Your task to perform on an android device: turn on location history Image 0: 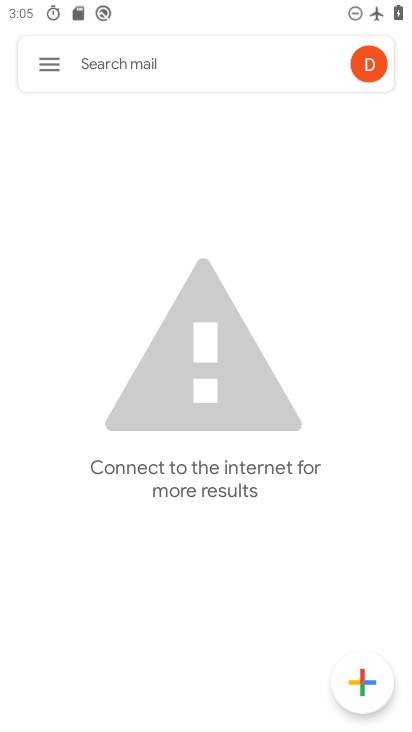
Step 0: drag from (281, 632) to (334, 94)
Your task to perform on an android device: turn on location history Image 1: 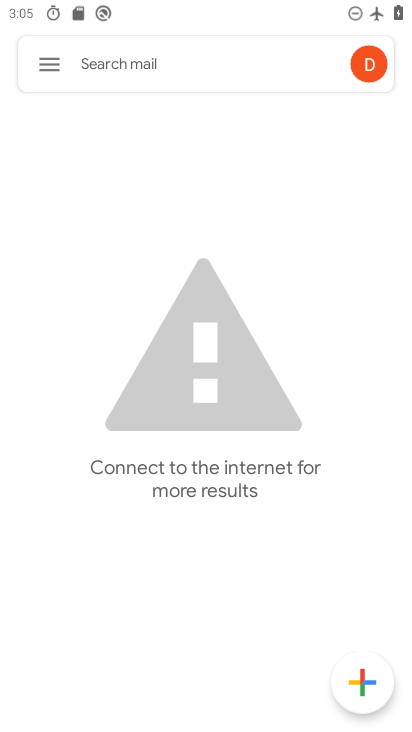
Step 1: press home button
Your task to perform on an android device: turn on location history Image 2: 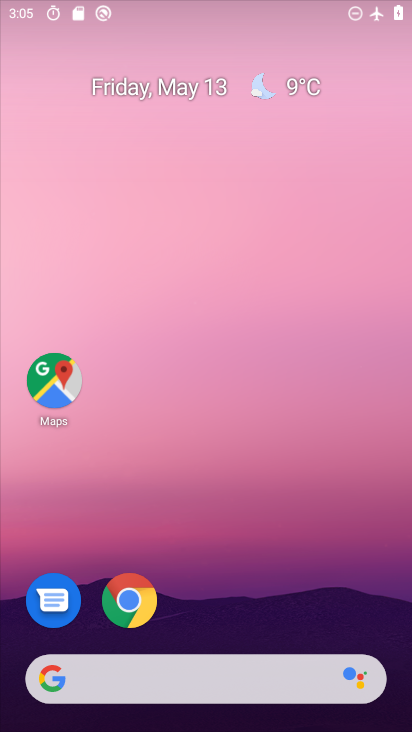
Step 2: drag from (215, 637) to (275, 11)
Your task to perform on an android device: turn on location history Image 3: 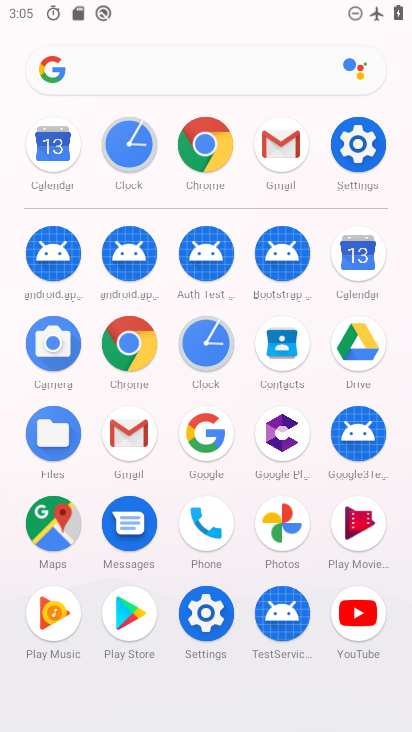
Step 3: click (353, 137)
Your task to perform on an android device: turn on location history Image 4: 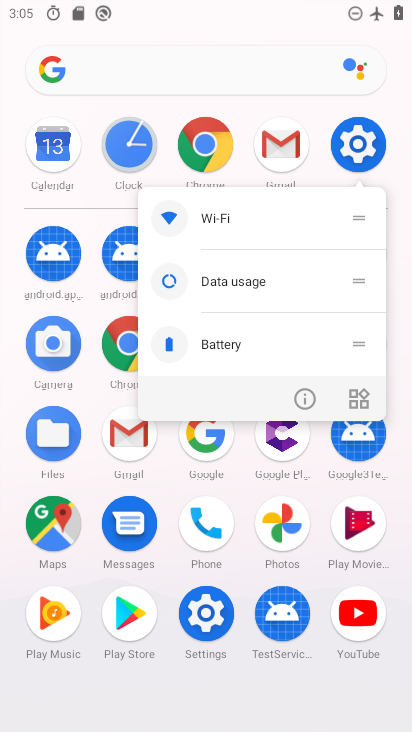
Step 4: click (310, 391)
Your task to perform on an android device: turn on location history Image 5: 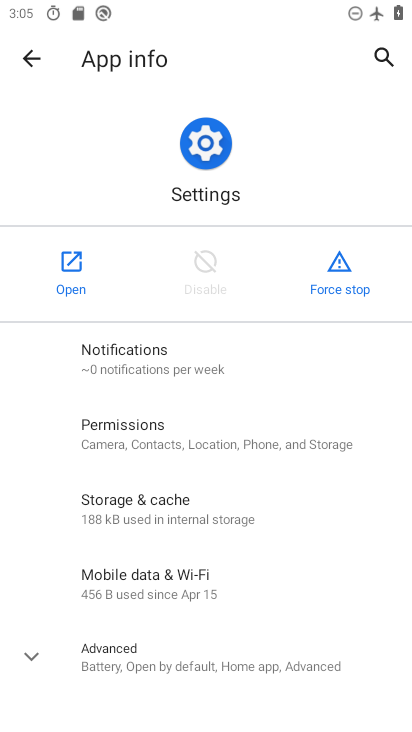
Step 5: click (77, 261)
Your task to perform on an android device: turn on location history Image 6: 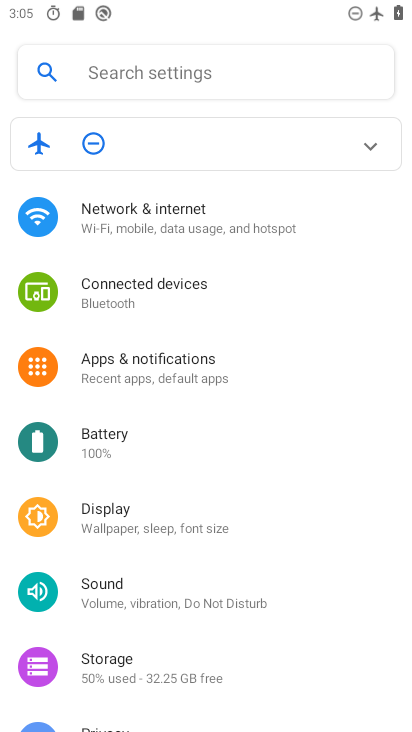
Step 6: drag from (196, 600) to (247, 89)
Your task to perform on an android device: turn on location history Image 7: 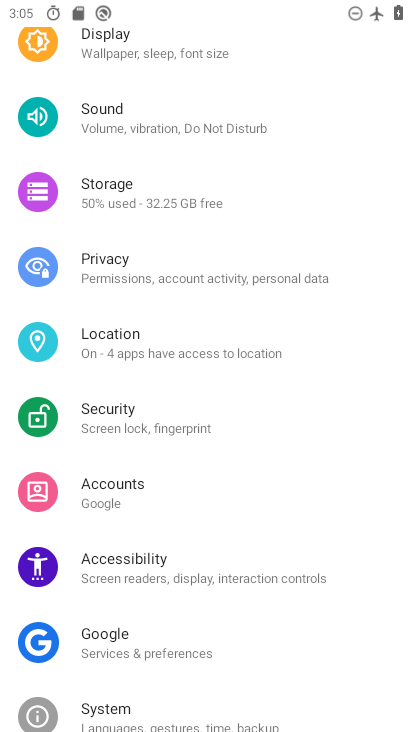
Step 7: click (123, 351)
Your task to perform on an android device: turn on location history Image 8: 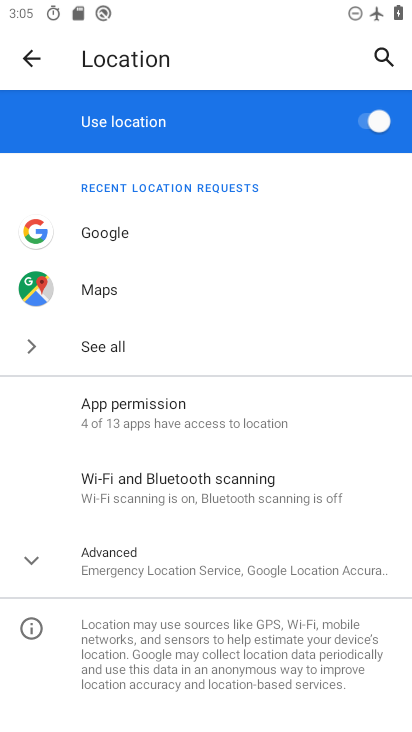
Step 8: click (189, 567)
Your task to perform on an android device: turn on location history Image 9: 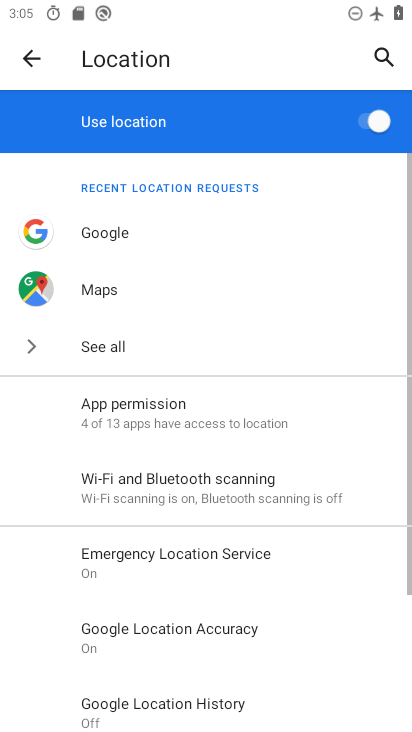
Step 9: drag from (213, 589) to (262, 235)
Your task to perform on an android device: turn on location history Image 10: 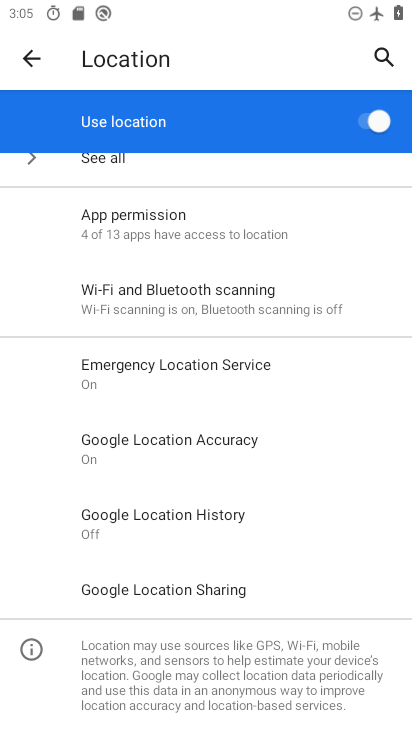
Step 10: click (223, 530)
Your task to perform on an android device: turn on location history Image 11: 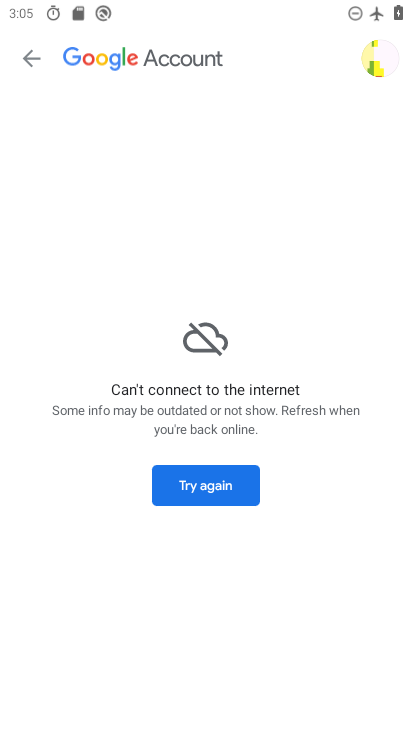
Step 11: click (229, 523)
Your task to perform on an android device: turn on location history Image 12: 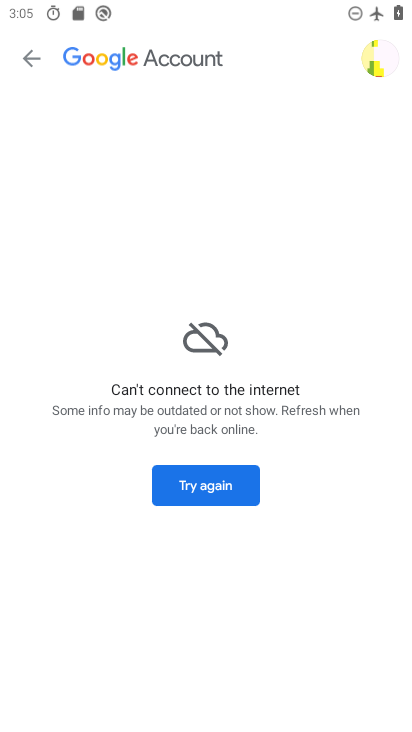
Step 12: click (194, 486)
Your task to perform on an android device: turn on location history Image 13: 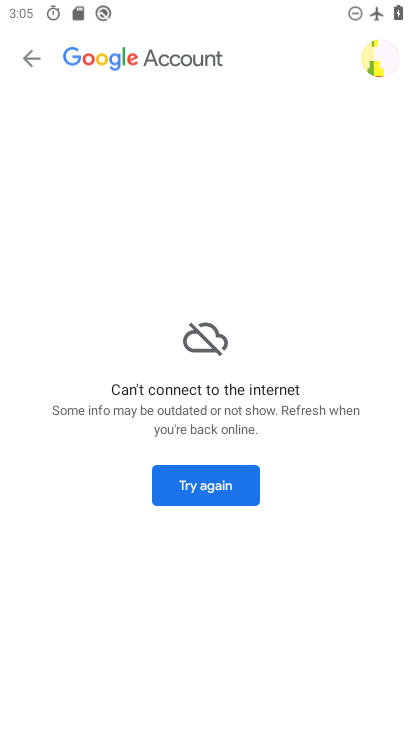
Step 13: task complete